Your task to perform on an android device: Open eBay Image 0: 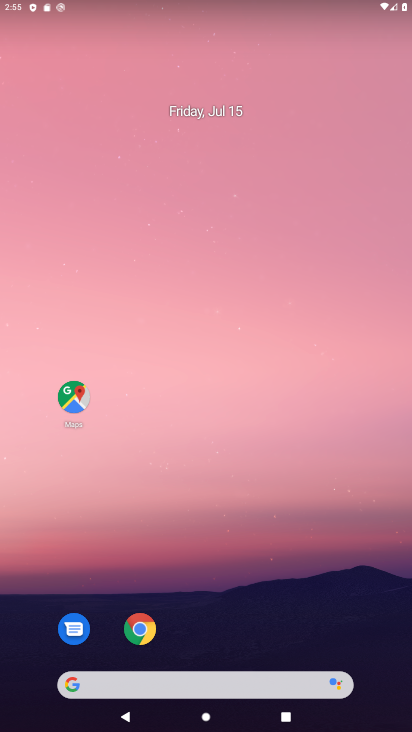
Step 0: click (143, 634)
Your task to perform on an android device: Open eBay Image 1: 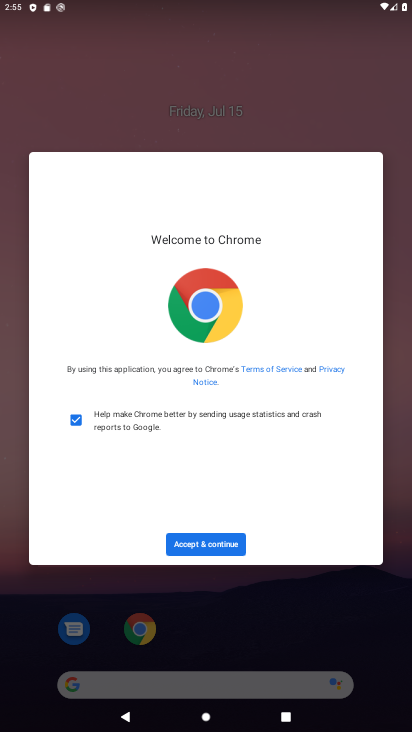
Step 1: click (212, 552)
Your task to perform on an android device: Open eBay Image 2: 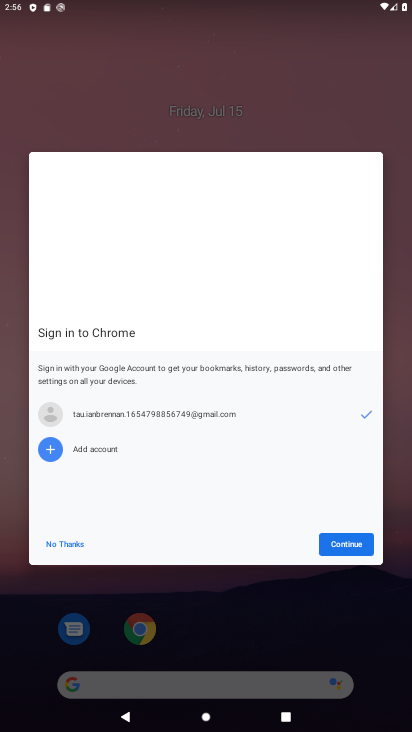
Step 2: click (340, 537)
Your task to perform on an android device: Open eBay Image 3: 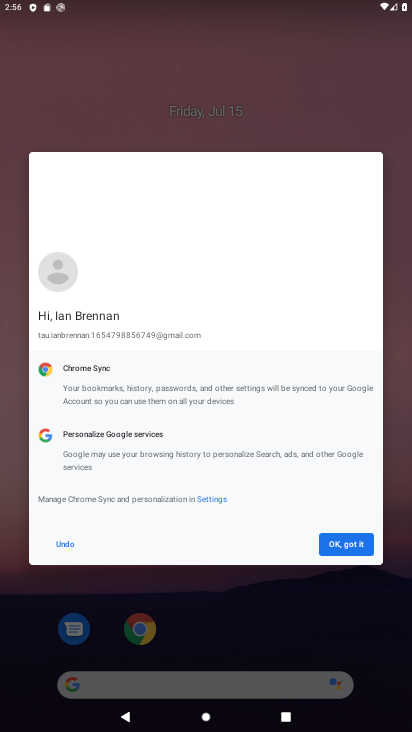
Step 3: click (344, 540)
Your task to perform on an android device: Open eBay Image 4: 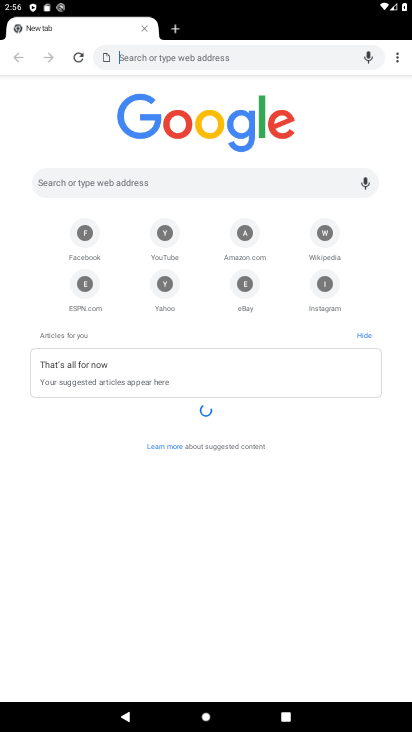
Step 4: click (251, 290)
Your task to perform on an android device: Open eBay Image 5: 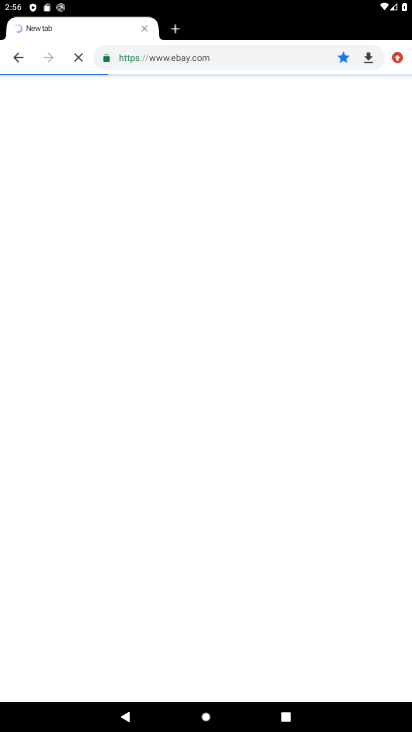
Step 5: click (251, 290)
Your task to perform on an android device: Open eBay Image 6: 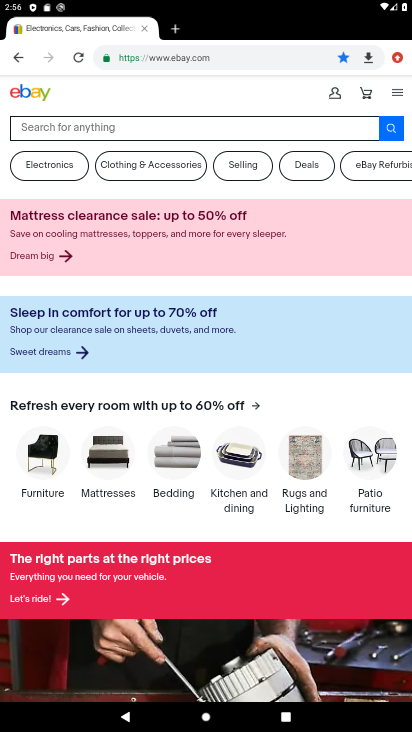
Step 6: task complete